Your task to perform on an android device: Turn on the flashlight Image 0: 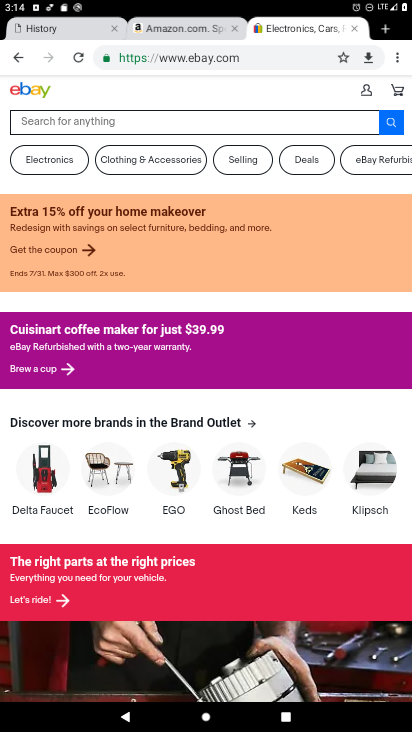
Step 0: press home button
Your task to perform on an android device: Turn on the flashlight Image 1: 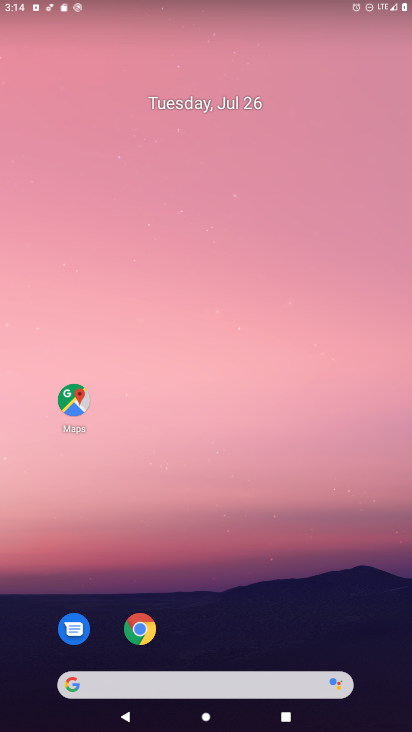
Step 1: drag from (214, 24) to (200, 202)
Your task to perform on an android device: Turn on the flashlight Image 2: 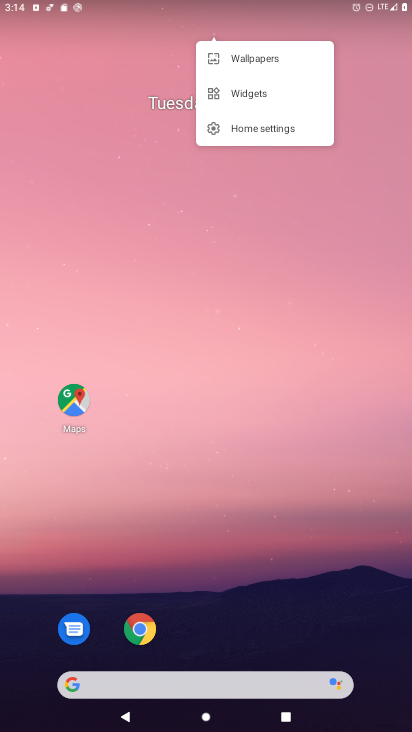
Step 2: click (193, 17)
Your task to perform on an android device: Turn on the flashlight Image 3: 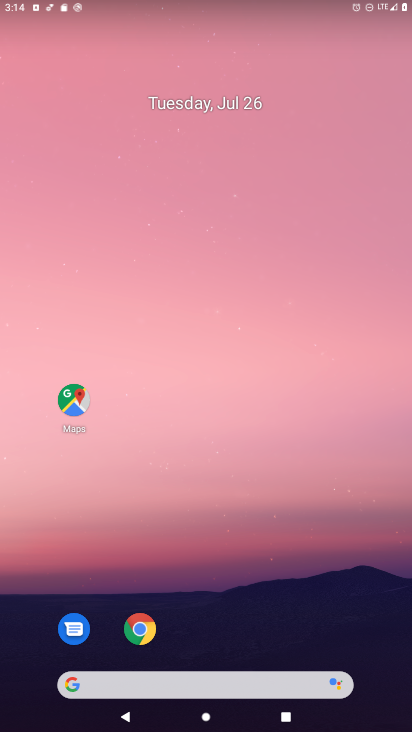
Step 3: drag from (191, 11) to (169, 351)
Your task to perform on an android device: Turn on the flashlight Image 4: 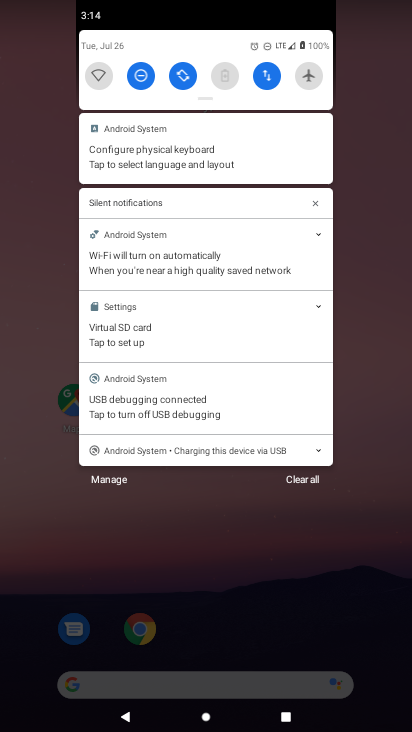
Step 4: drag from (208, 105) to (187, 366)
Your task to perform on an android device: Turn on the flashlight Image 5: 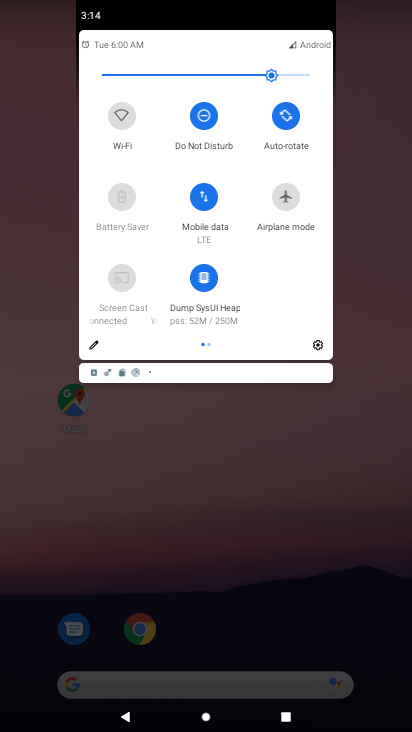
Step 5: click (90, 345)
Your task to perform on an android device: Turn on the flashlight Image 6: 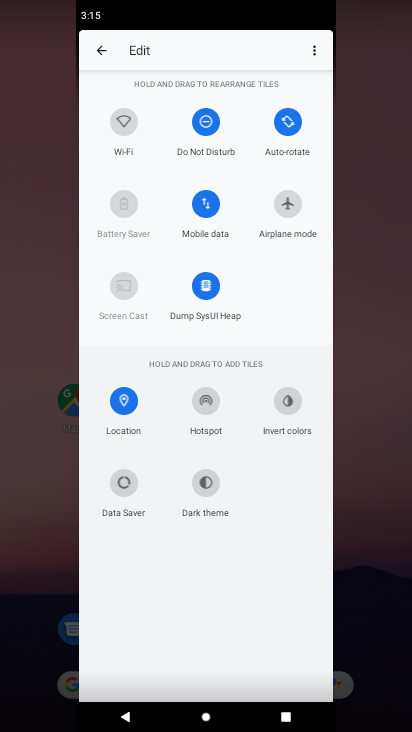
Step 6: task complete